Your task to perform on an android device: star an email in the gmail app Image 0: 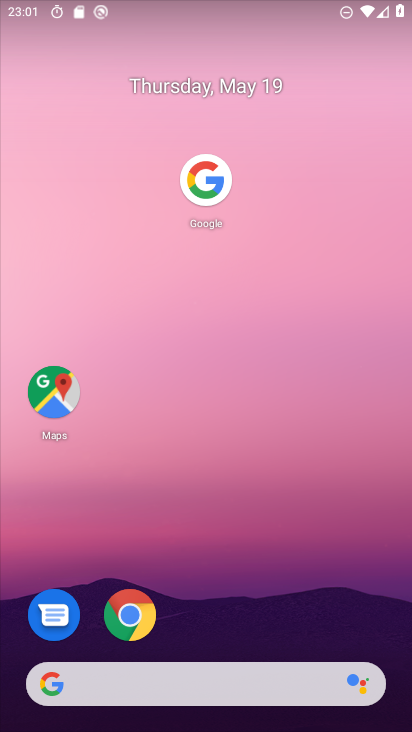
Step 0: drag from (231, 549) to (188, 50)
Your task to perform on an android device: star an email in the gmail app Image 1: 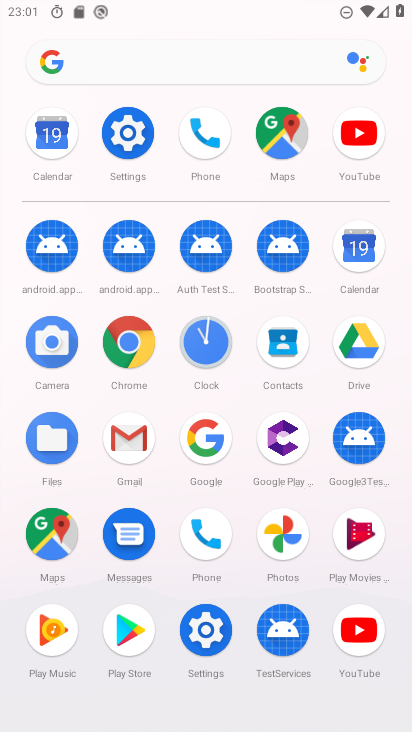
Step 1: click (125, 440)
Your task to perform on an android device: star an email in the gmail app Image 2: 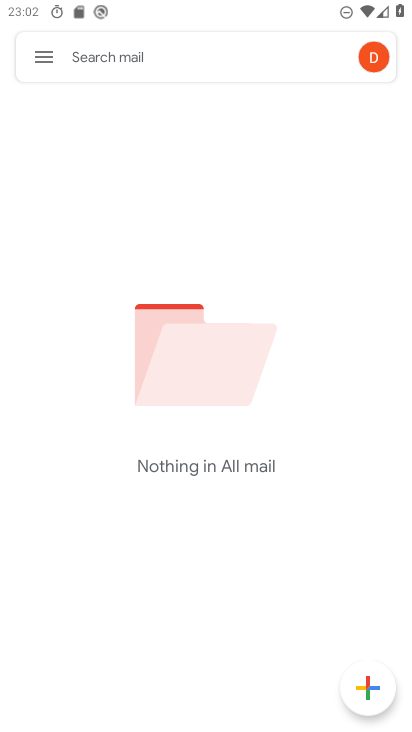
Step 2: task complete